Your task to perform on an android device: Go to Google Image 0: 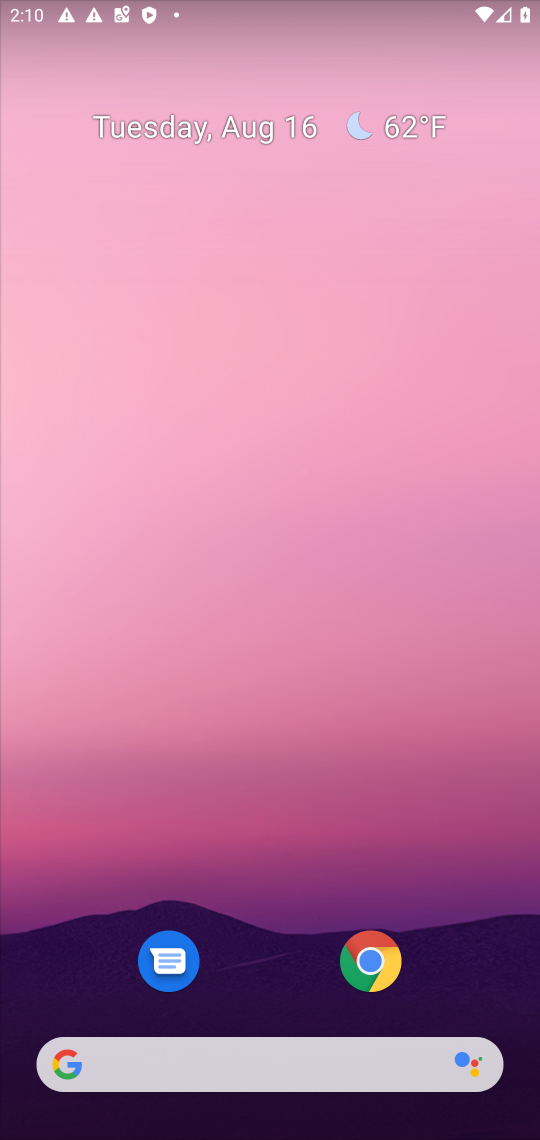
Step 0: drag from (470, 977) to (238, 177)
Your task to perform on an android device: Go to Google Image 1: 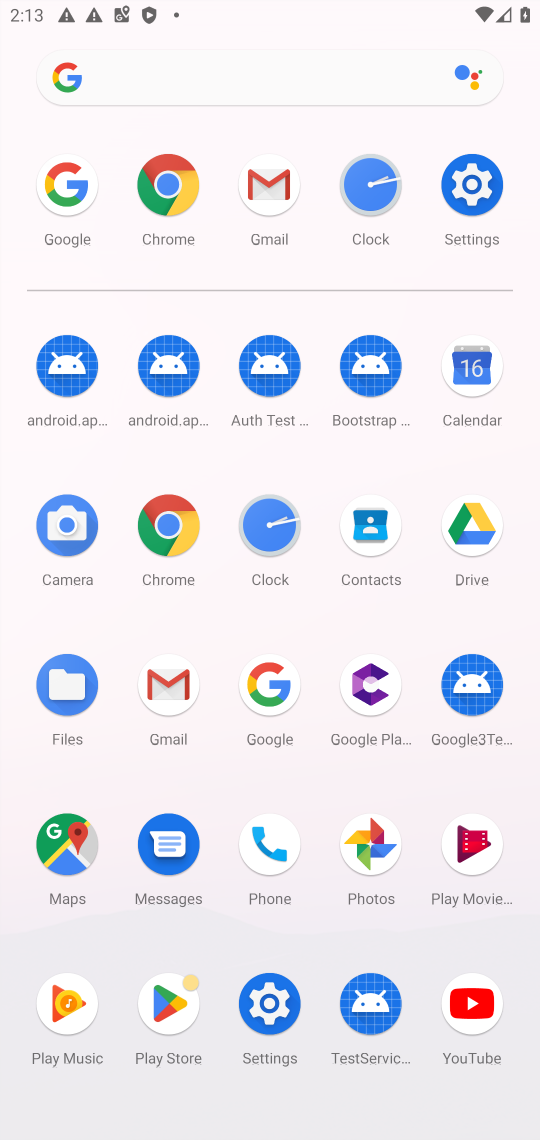
Step 1: click (268, 692)
Your task to perform on an android device: Go to Google Image 2: 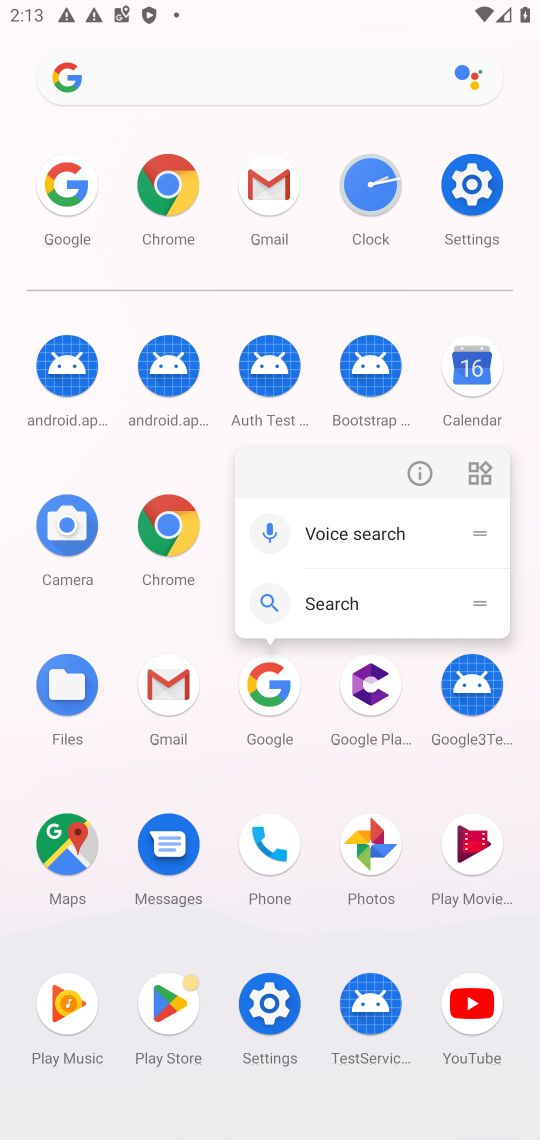
Step 2: click (268, 692)
Your task to perform on an android device: Go to Google Image 3: 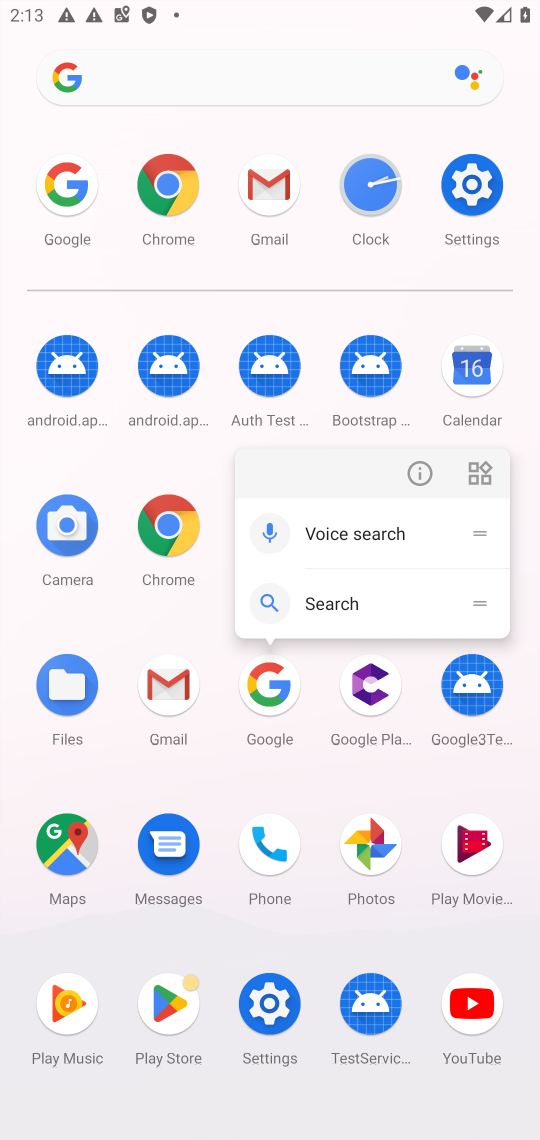
Step 3: click (268, 692)
Your task to perform on an android device: Go to Google Image 4: 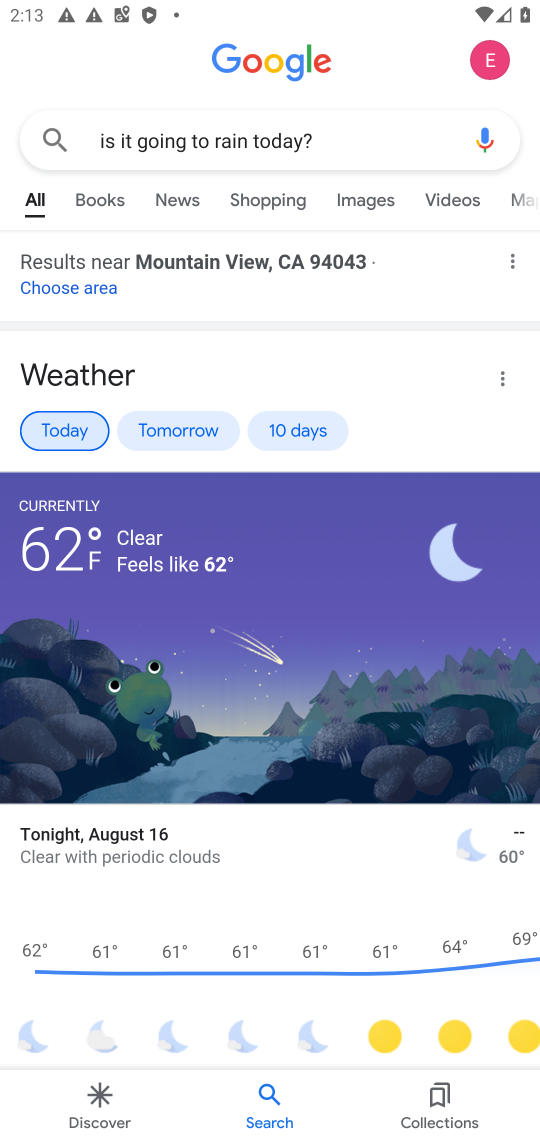
Step 4: task complete